Your task to perform on an android device: install app "Booking.com: Hotels and more" Image 0: 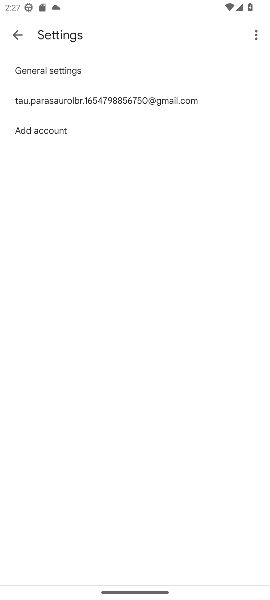
Step 0: press home button
Your task to perform on an android device: install app "Booking.com: Hotels and more" Image 1: 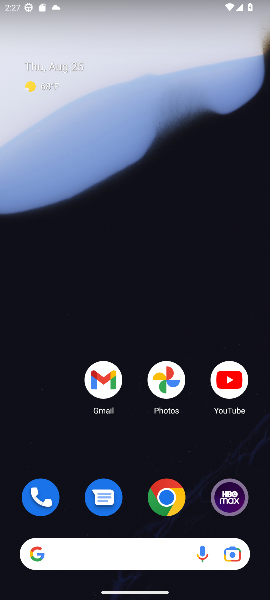
Step 1: drag from (134, 516) to (134, 203)
Your task to perform on an android device: install app "Booking.com: Hotels and more" Image 2: 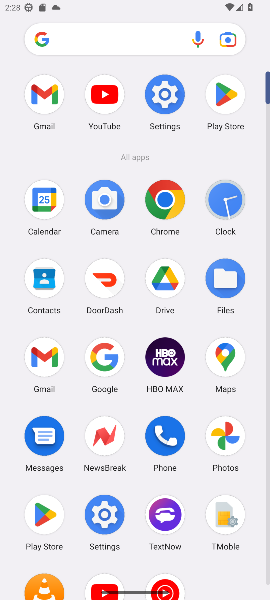
Step 2: click (230, 92)
Your task to perform on an android device: install app "Booking.com: Hotels and more" Image 3: 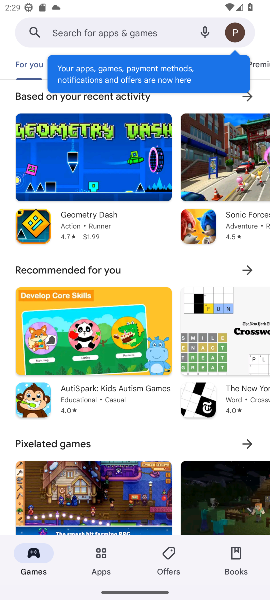
Step 3: click (121, 33)
Your task to perform on an android device: install app "Booking.com: Hotels and more" Image 4: 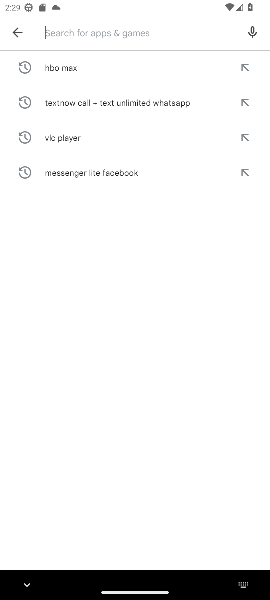
Step 4: type "Booking.com: Hotels and more "
Your task to perform on an android device: install app "Booking.com: Hotels and more" Image 5: 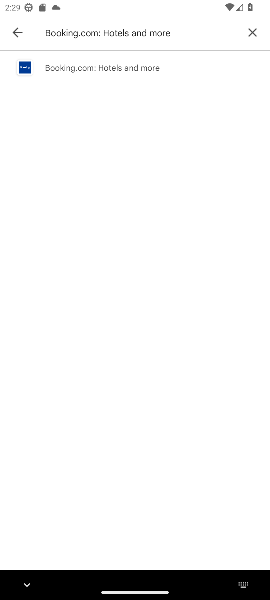
Step 5: click (132, 63)
Your task to perform on an android device: install app "Booking.com: Hotels and more" Image 6: 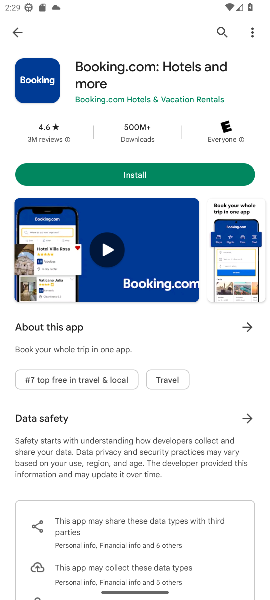
Step 6: click (144, 164)
Your task to perform on an android device: install app "Booking.com: Hotels and more" Image 7: 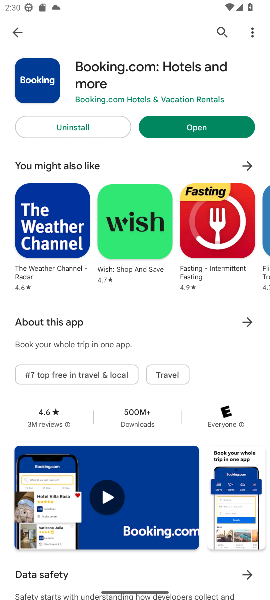
Step 7: click (198, 125)
Your task to perform on an android device: install app "Booking.com: Hotels and more" Image 8: 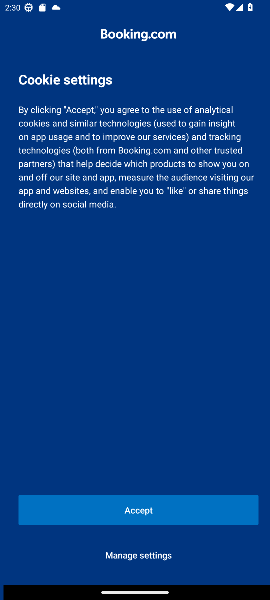
Step 8: task complete